Your task to perform on an android device: turn off wifi Image 0: 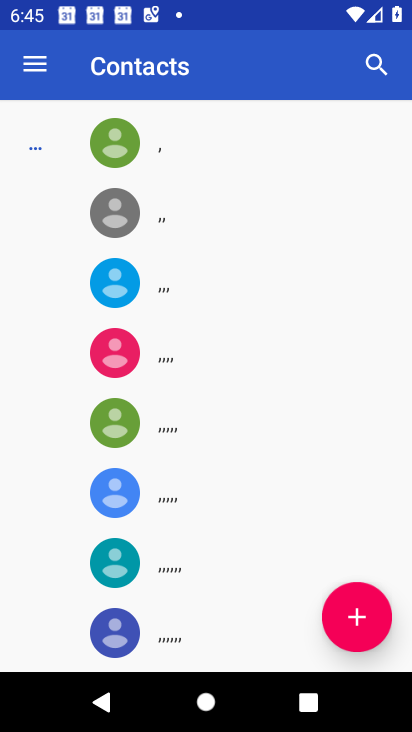
Step 0: drag from (387, 539) to (383, 359)
Your task to perform on an android device: turn off wifi Image 1: 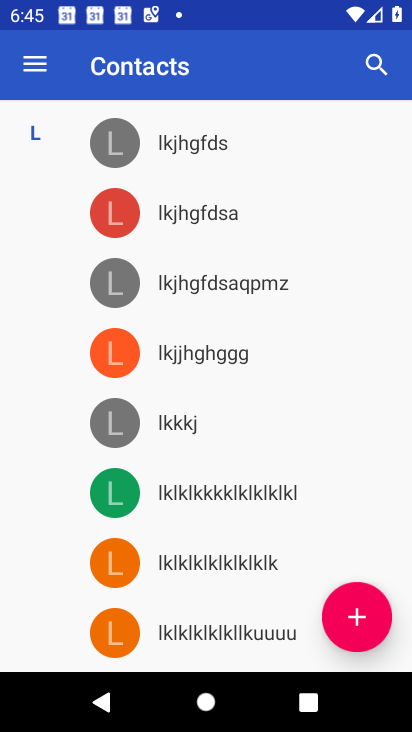
Step 1: press home button
Your task to perform on an android device: turn off wifi Image 2: 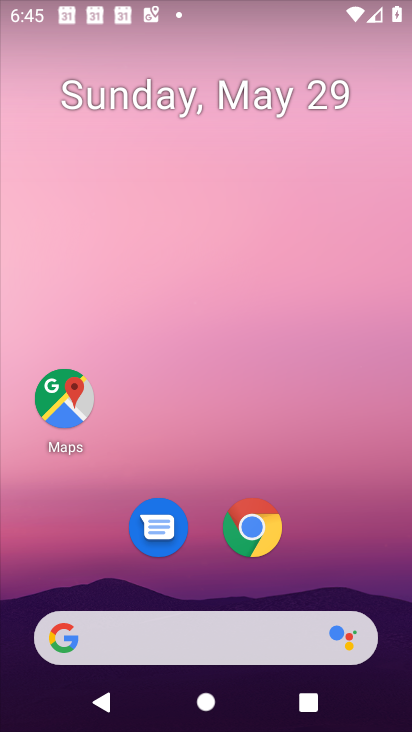
Step 2: drag from (206, 26) to (331, 495)
Your task to perform on an android device: turn off wifi Image 3: 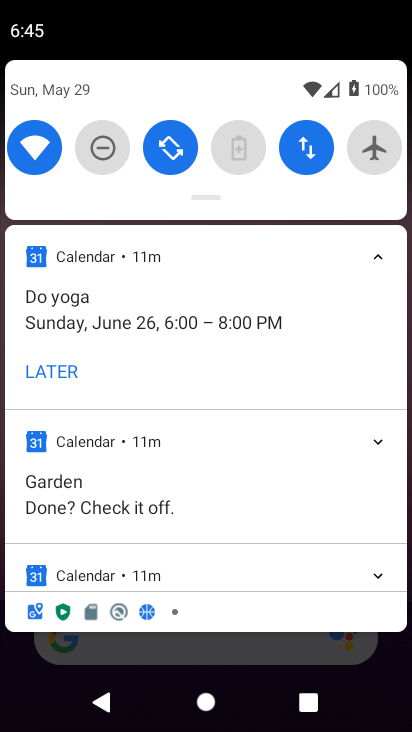
Step 3: click (31, 146)
Your task to perform on an android device: turn off wifi Image 4: 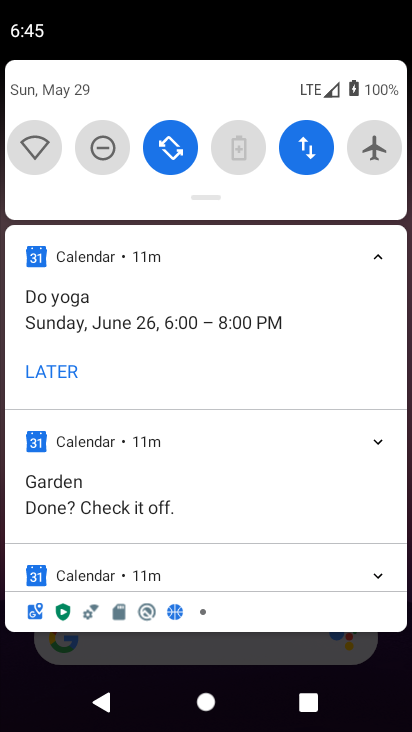
Step 4: task complete